Your task to perform on an android device: Search for the best rated electric lawnmower on Home Depot Image 0: 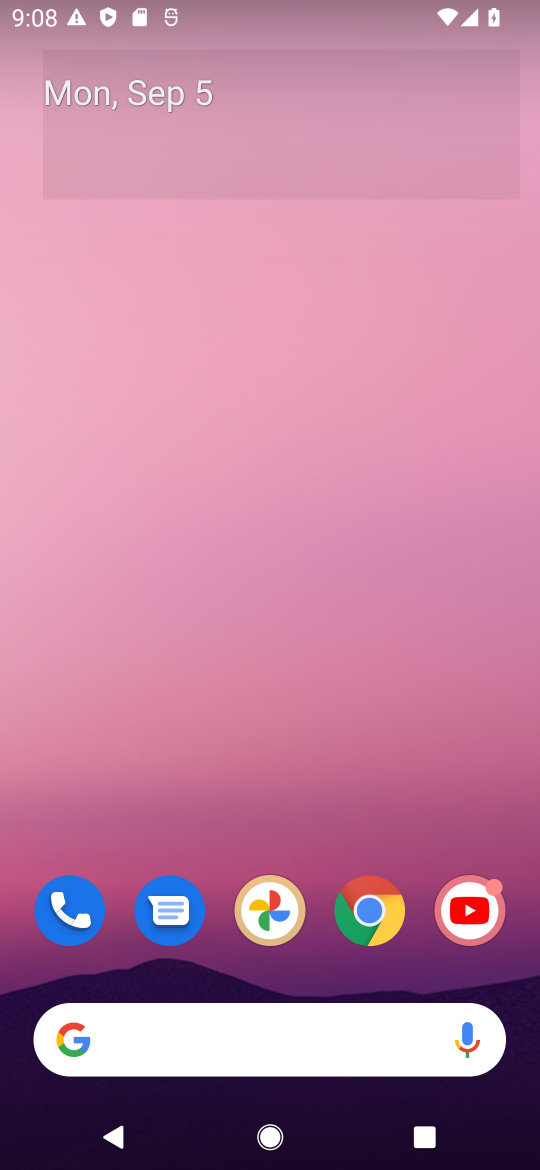
Step 0: click (361, 918)
Your task to perform on an android device: Search for the best rated electric lawnmower on Home Depot Image 1: 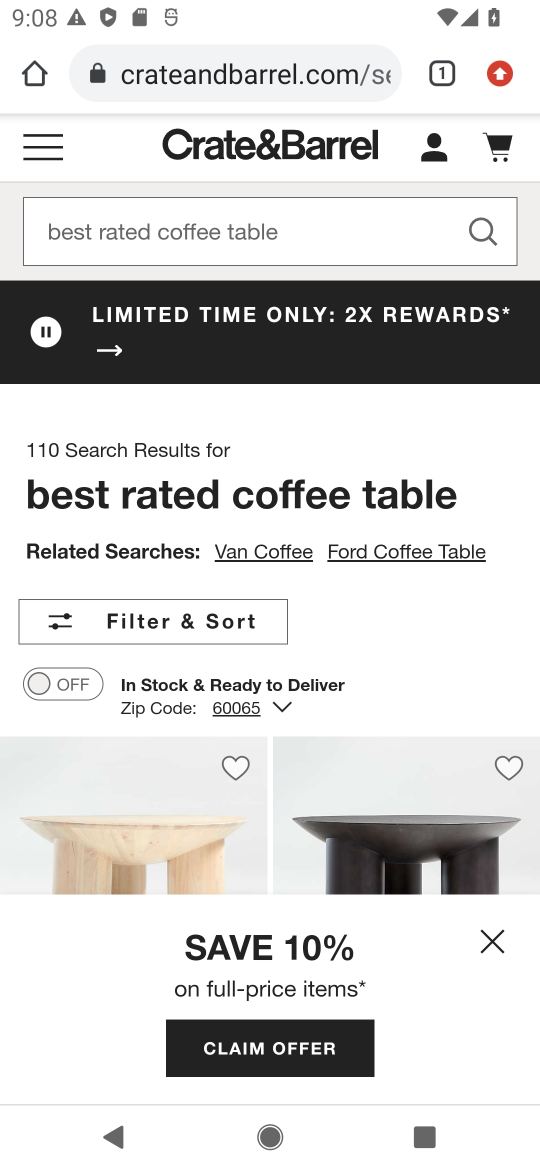
Step 1: click (306, 63)
Your task to perform on an android device: Search for the best rated electric lawnmower on Home Depot Image 2: 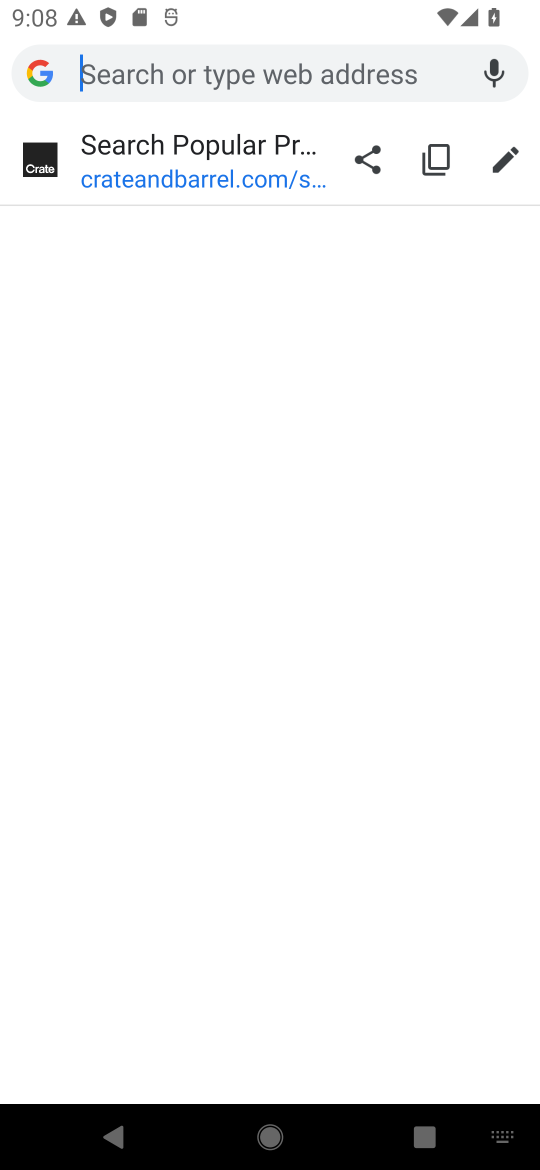
Step 2: type "homedepot"
Your task to perform on an android device: Search for the best rated electric lawnmower on Home Depot Image 3: 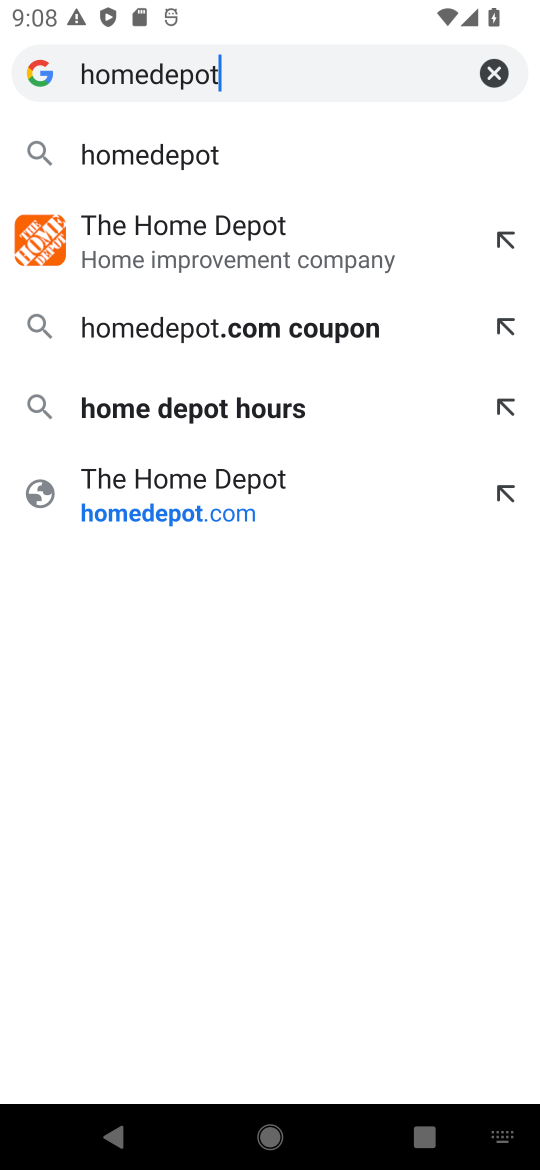
Step 3: click (276, 492)
Your task to perform on an android device: Search for the best rated electric lawnmower on Home Depot Image 4: 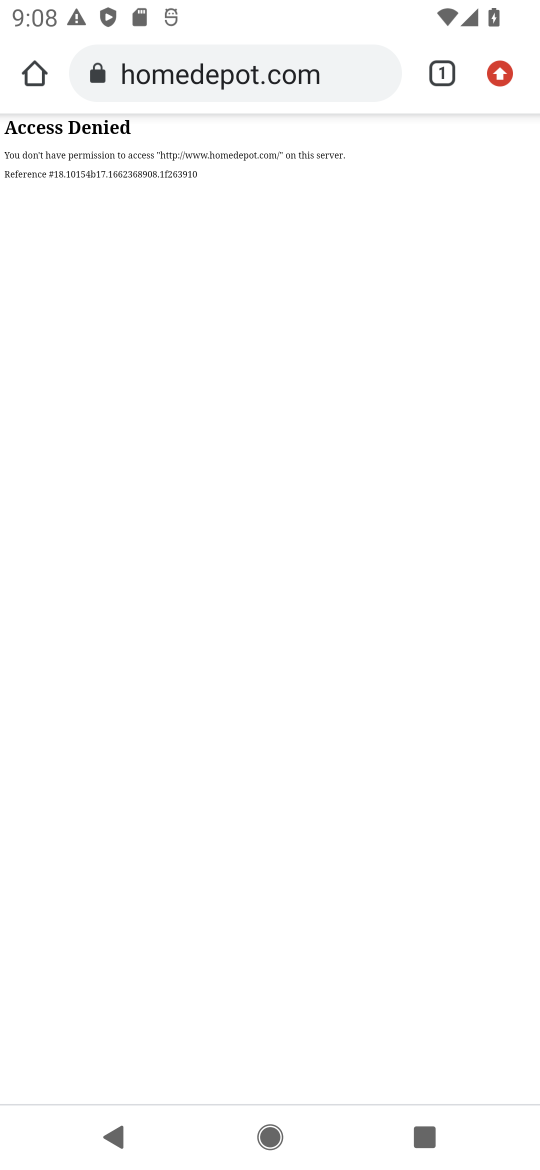
Step 4: task complete